Your task to perform on an android device: check the backup settings in the google photos Image 0: 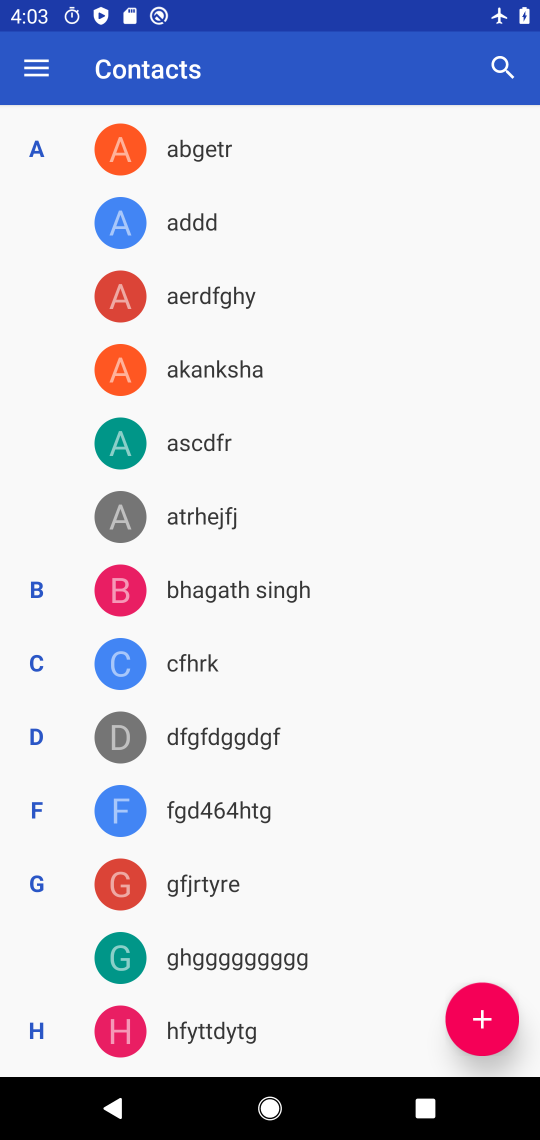
Step 0: press home button
Your task to perform on an android device: check the backup settings in the google photos Image 1: 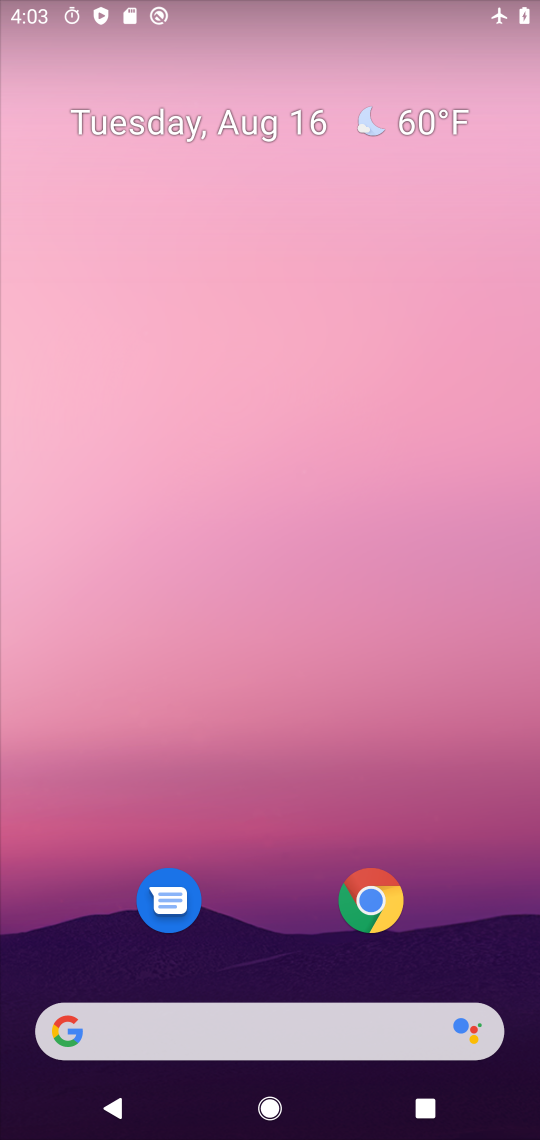
Step 1: drag from (266, 896) to (183, 200)
Your task to perform on an android device: check the backup settings in the google photos Image 2: 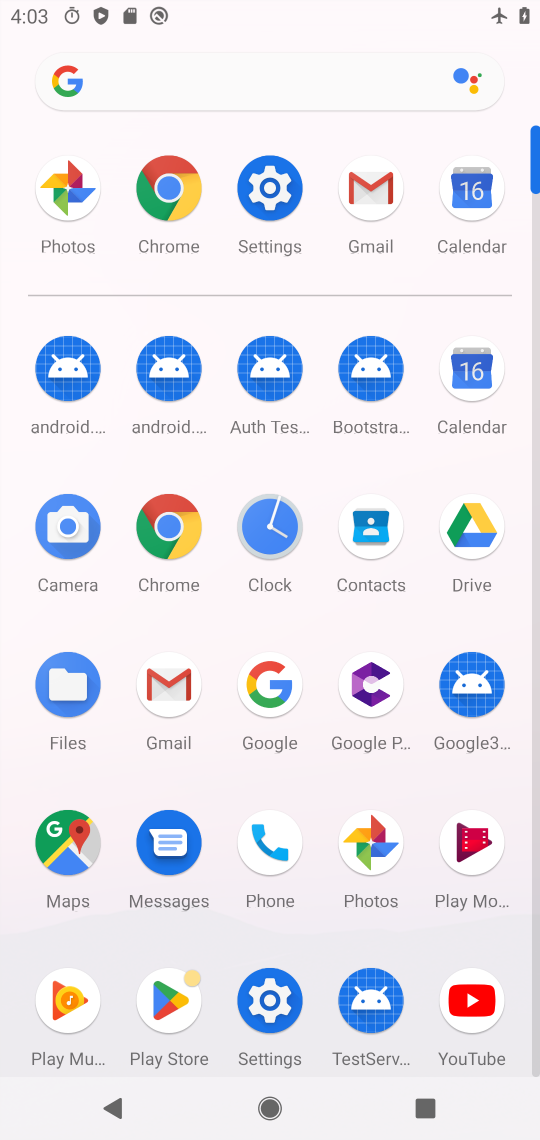
Step 2: click (374, 846)
Your task to perform on an android device: check the backup settings in the google photos Image 3: 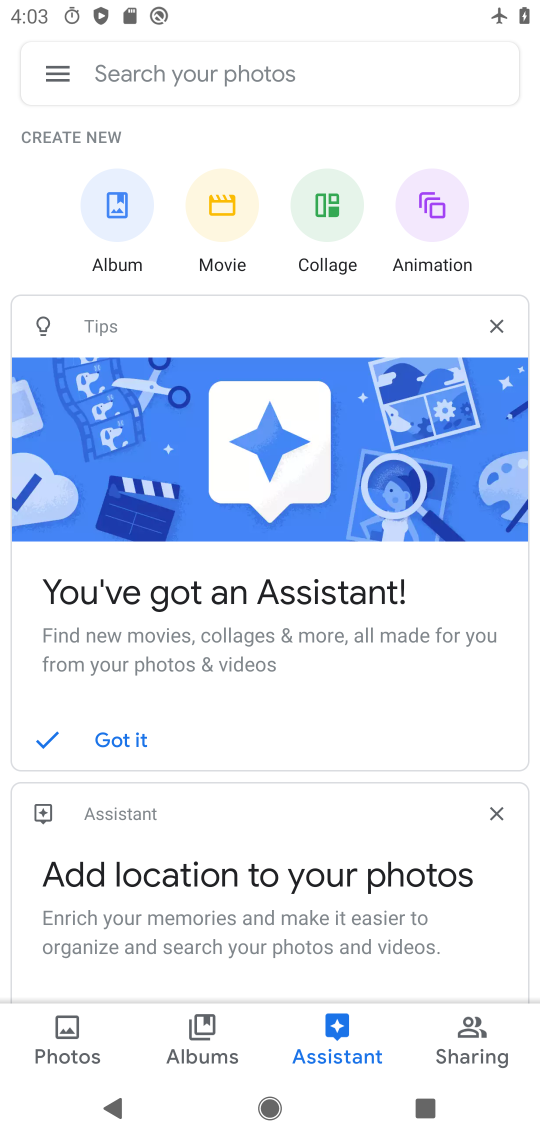
Step 3: click (59, 67)
Your task to perform on an android device: check the backup settings in the google photos Image 4: 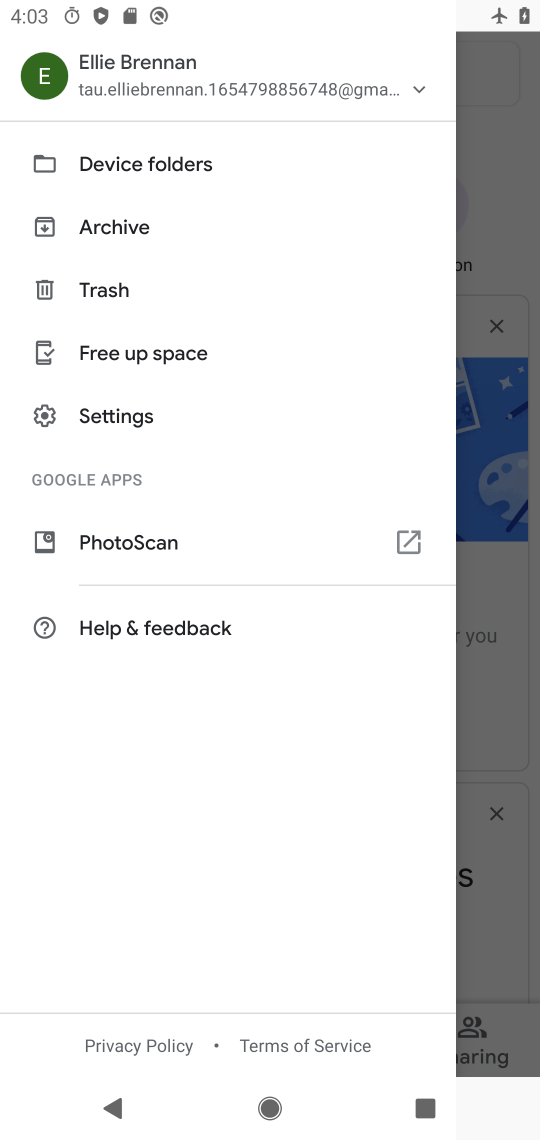
Step 4: click (116, 410)
Your task to perform on an android device: check the backup settings in the google photos Image 5: 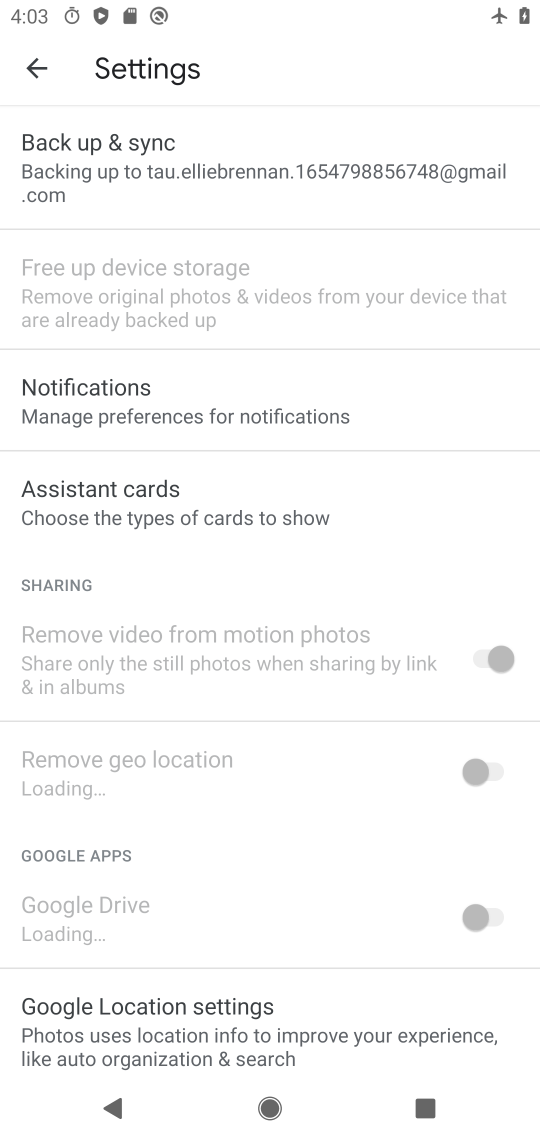
Step 5: click (93, 166)
Your task to perform on an android device: check the backup settings in the google photos Image 6: 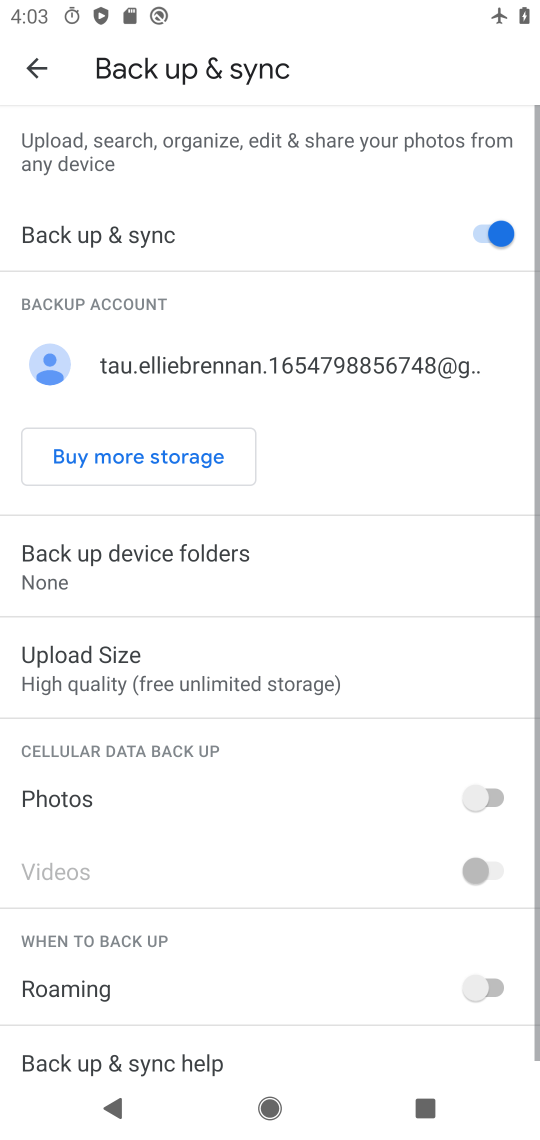
Step 6: task complete